Your task to perform on an android device: Open settings Image 0: 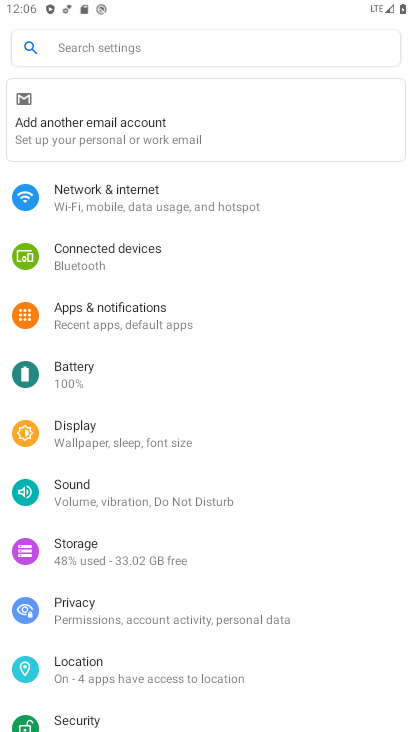
Step 0: task complete